Your task to perform on an android device: Open network settings Image 0: 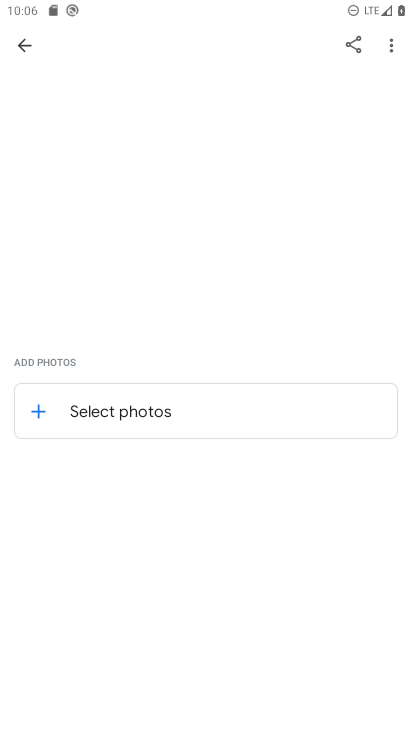
Step 0: press home button
Your task to perform on an android device: Open network settings Image 1: 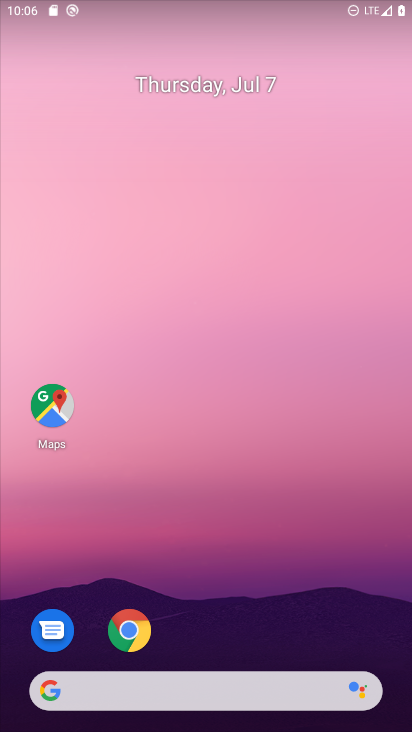
Step 1: drag from (201, 592) to (147, 172)
Your task to perform on an android device: Open network settings Image 2: 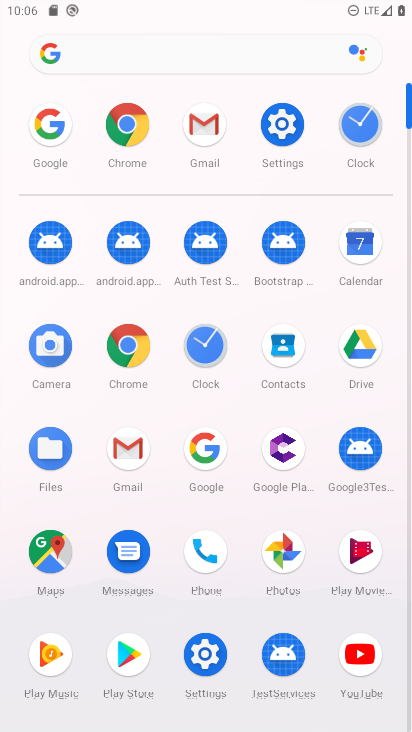
Step 2: click (264, 134)
Your task to perform on an android device: Open network settings Image 3: 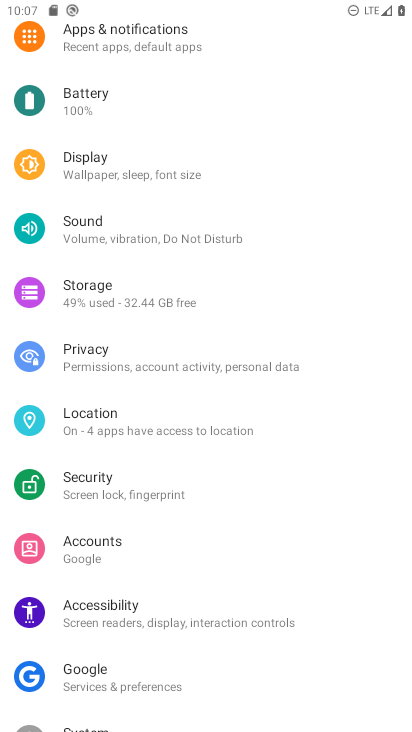
Step 3: drag from (172, 134) to (197, 483)
Your task to perform on an android device: Open network settings Image 4: 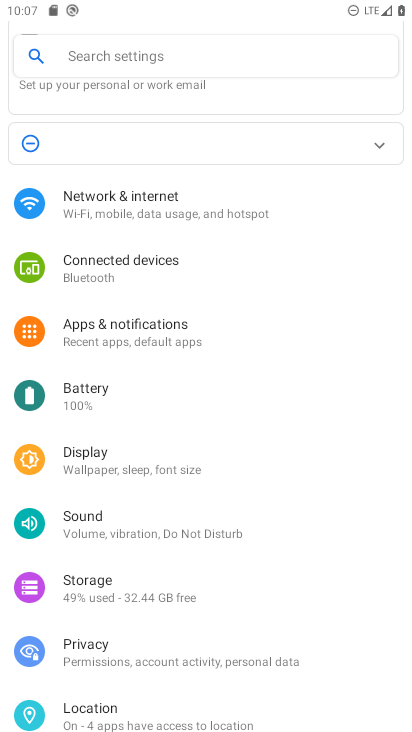
Step 4: click (115, 221)
Your task to perform on an android device: Open network settings Image 5: 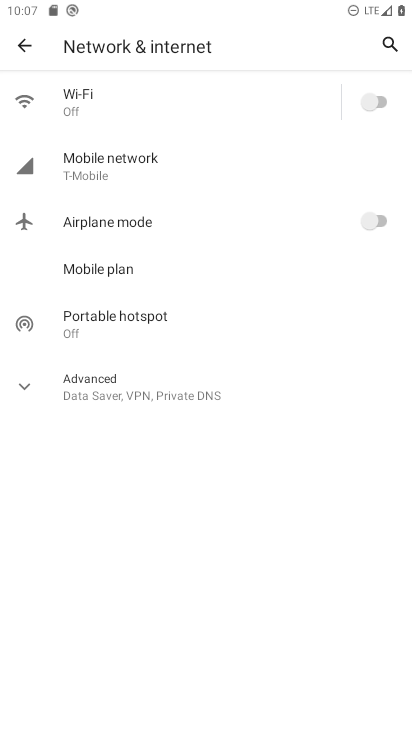
Step 5: task complete